Your task to perform on an android device: turn off translation in the chrome app Image 0: 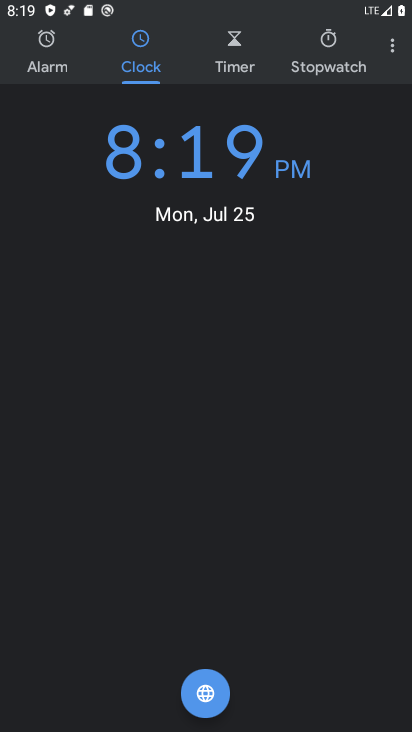
Step 0: press home button
Your task to perform on an android device: turn off translation in the chrome app Image 1: 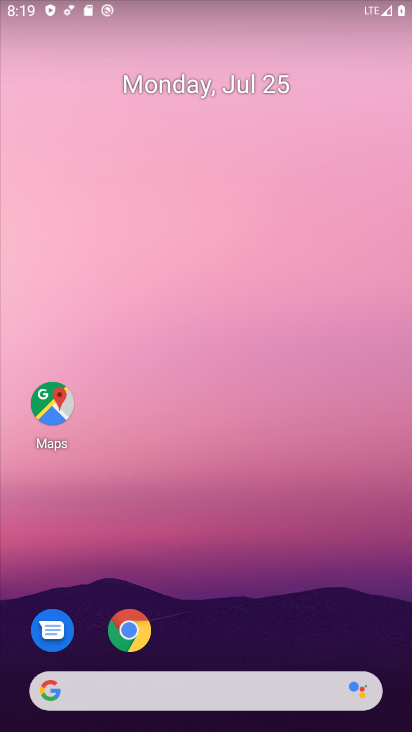
Step 1: click (127, 637)
Your task to perform on an android device: turn off translation in the chrome app Image 2: 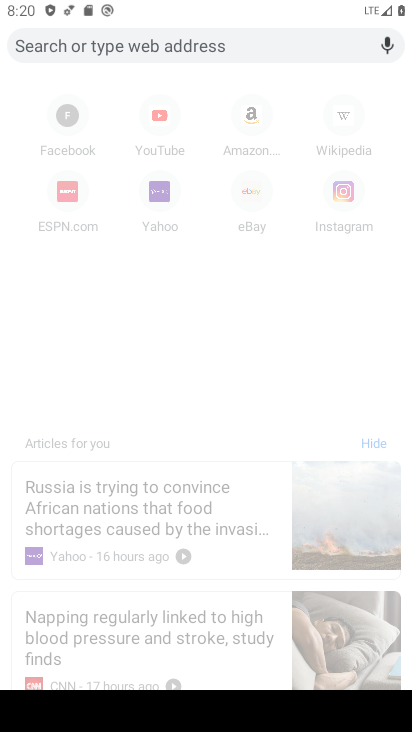
Step 2: click (130, 276)
Your task to perform on an android device: turn off translation in the chrome app Image 3: 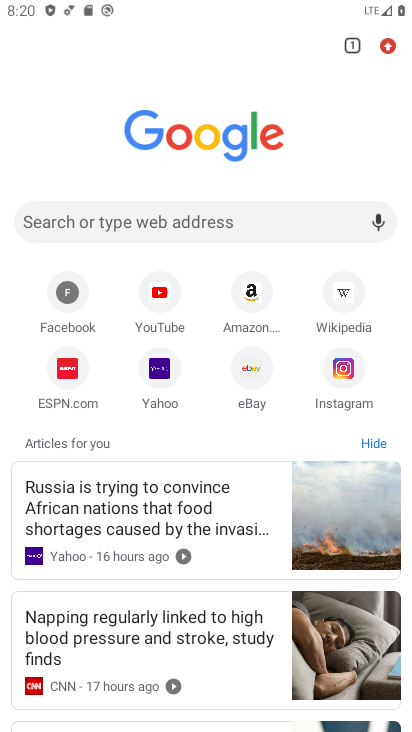
Step 3: click (388, 38)
Your task to perform on an android device: turn off translation in the chrome app Image 4: 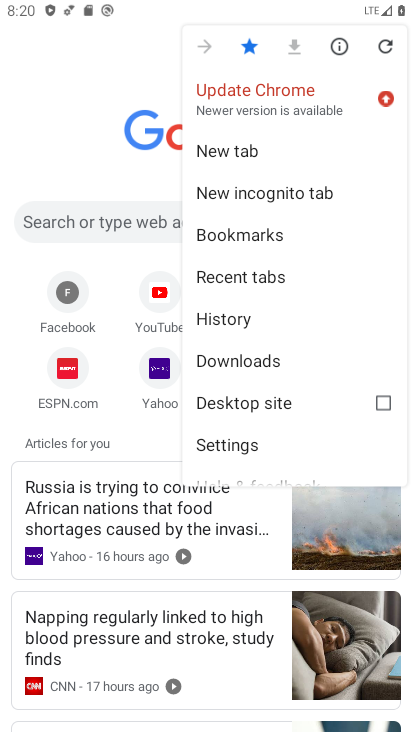
Step 4: click (227, 440)
Your task to perform on an android device: turn off translation in the chrome app Image 5: 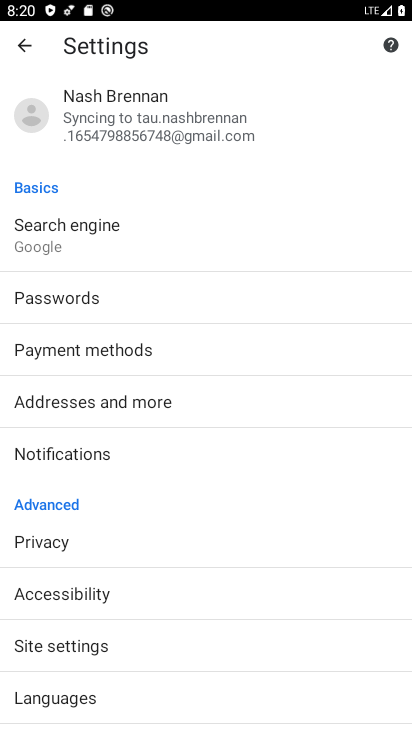
Step 5: click (76, 686)
Your task to perform on an android device: turn off translation in the chrome app Image 6: 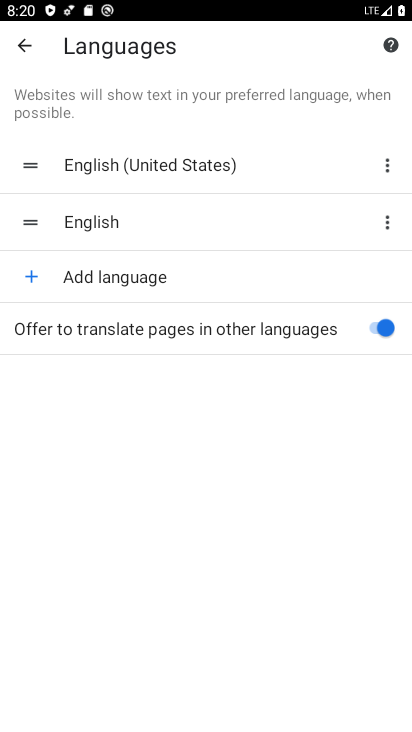
Step 6: click (390, 325)
Your task to perform on an android device: turn off translation in the chrome app Image 7: 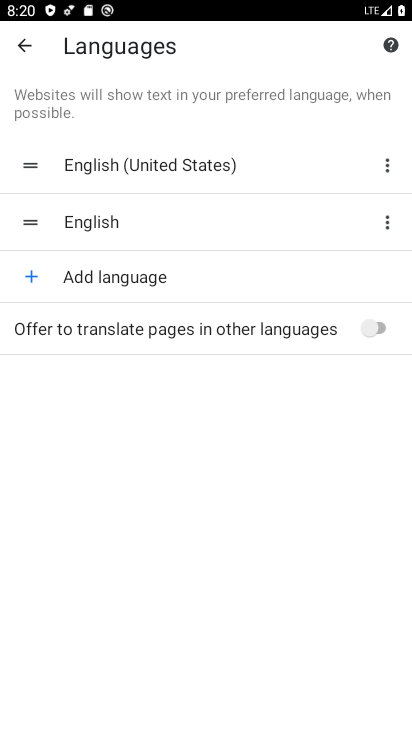
Step 7: task complete